Your task to perform on an android device: open a bookmark in the chrome app Image 0: 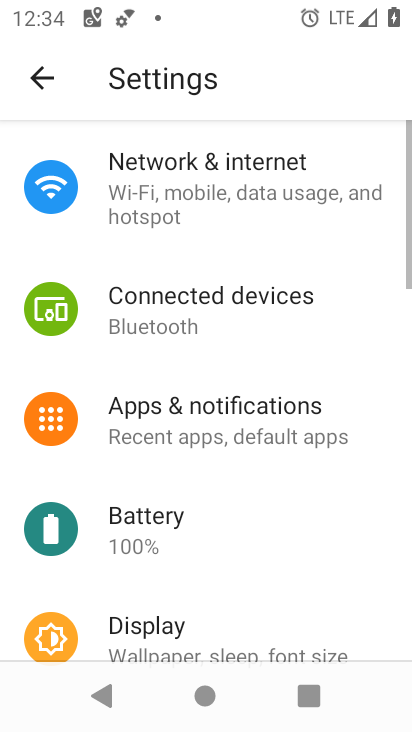
Step 0: press home button
Your task to perform on an android device: open a bookmark in the chrome app Image 1: 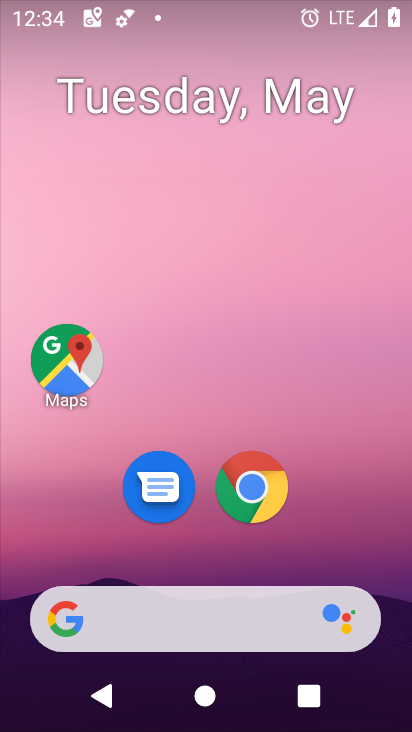
Step 1: click (255, 479)
Your task to perform on an android device: open a bookmark in the chrome app Image 2: 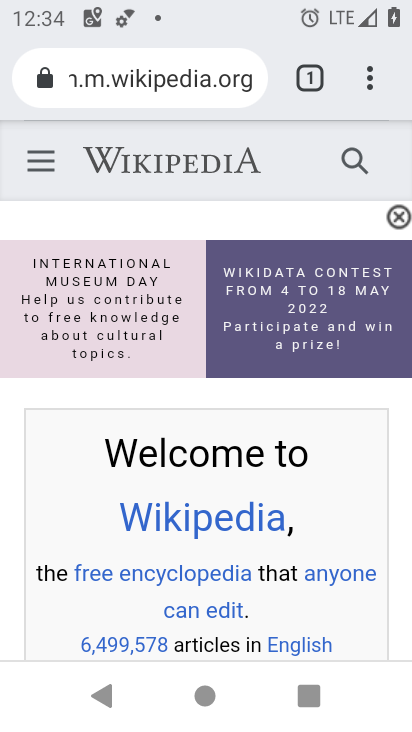
Step 2: click (372, 72)
Your task to perform on an android device: open a bookmark in the chrome app Image 3: 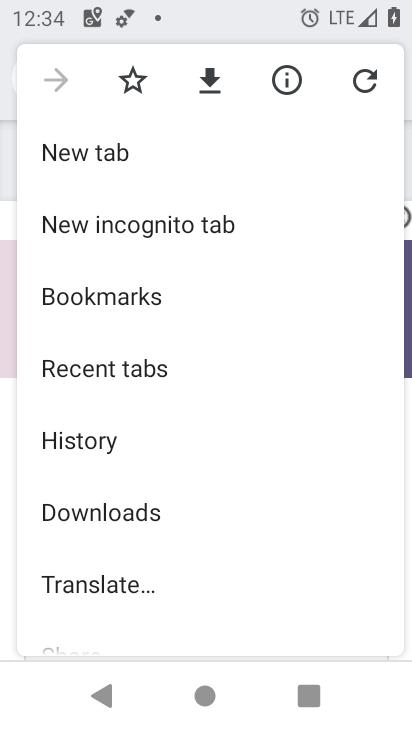
Step 3: click (219, 290)
Your task to perform on an android device: open a bookmark in the chrome app Image 4: 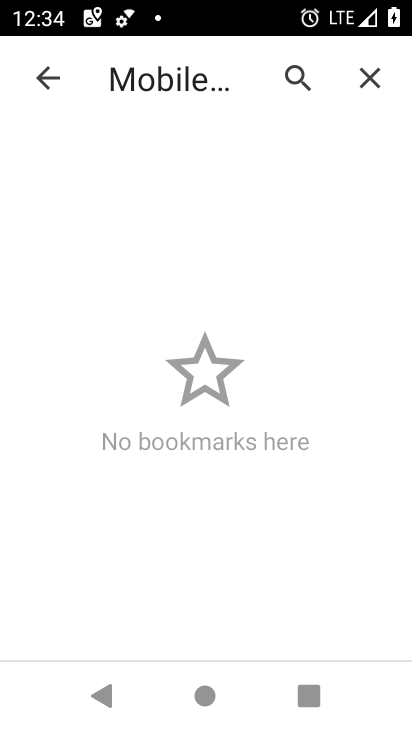
Step 4: task complete